Your task to perform on an android device: toggle pop-ups in chrome Image 0: 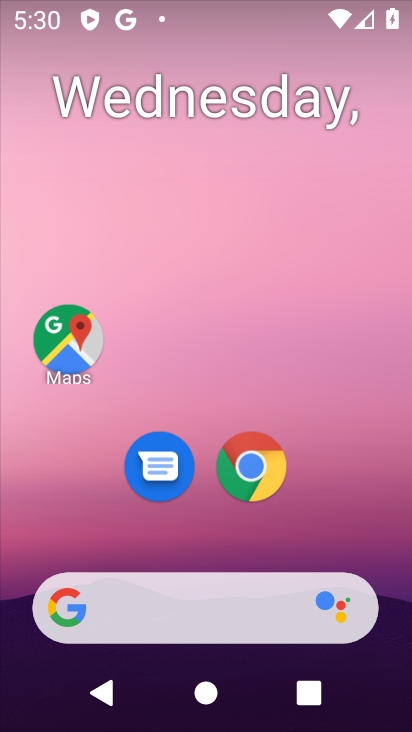
Step 0: click (266, 474)
Your task to perform on an android device: toggle pop-ups in chrome Image 1: 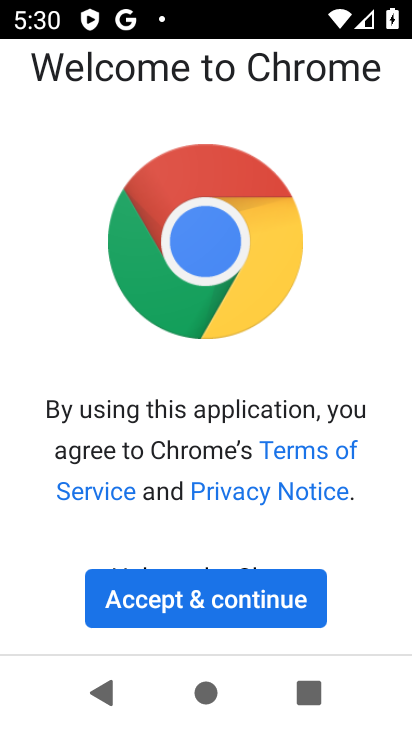
Step 1: click (221, 600)
Your task to perform on an android device: toggle pop-ups in chrome Image 2: 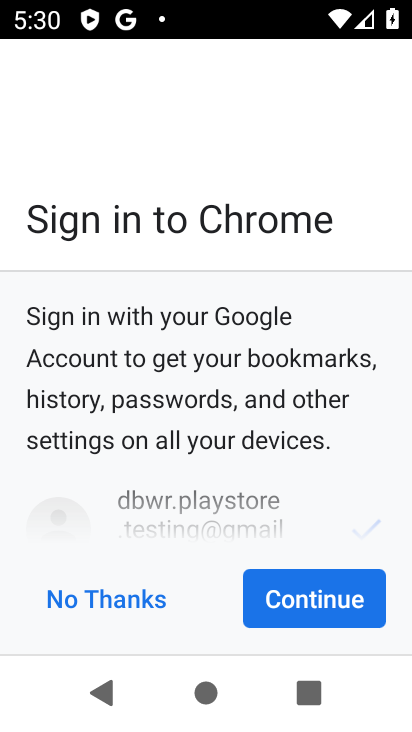
Step 2: click (283, 598)
Your task to perform on an android device: toggle pop-ups in chrome Image 3: 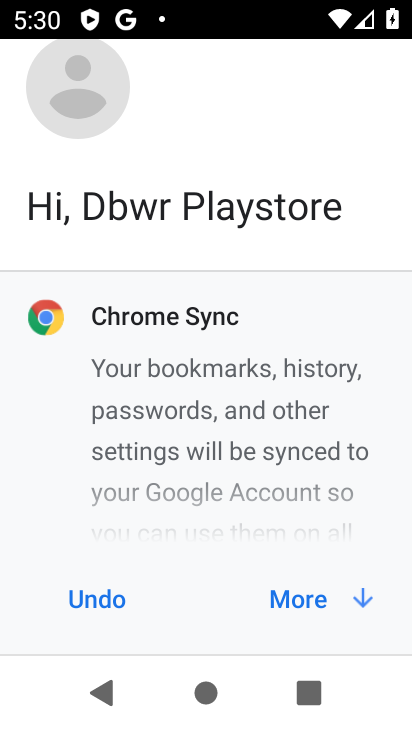
Step 3: click (315, 586)
Your task to perform on an android device: toggle pop-ups in chrome Image 4: 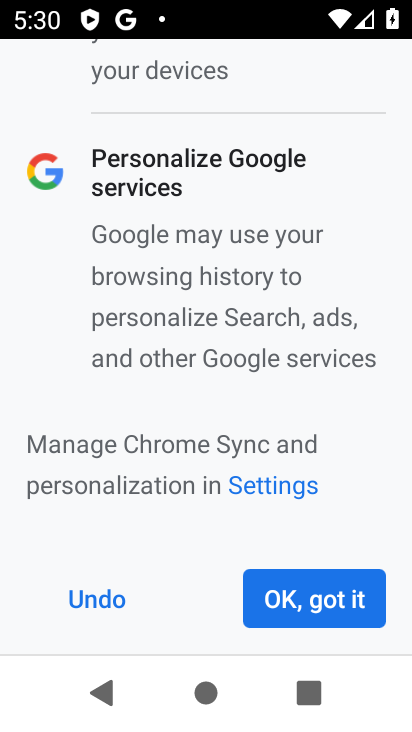
Step 4: click (315, 586)
Your task to perform on an android device: toggle pop-ups in chrome Image 5: 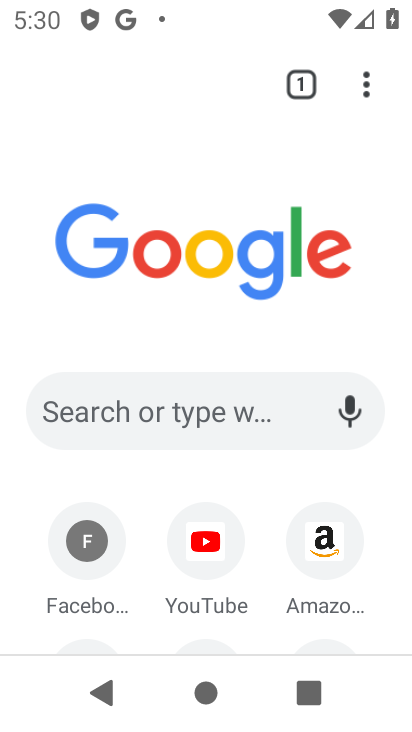
Step 5: task complete